Your task to perform on an android device: toggle pop-ups in chrome Image 0: 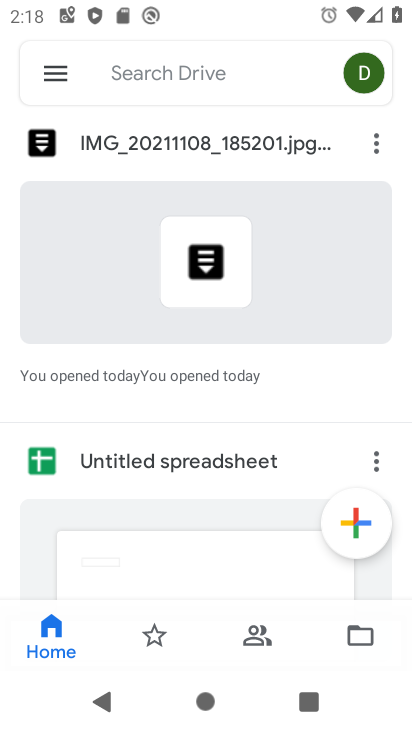
Step 0: press home button
Your task to perform on an android device: toggle pop-ups in chrome Image 1: 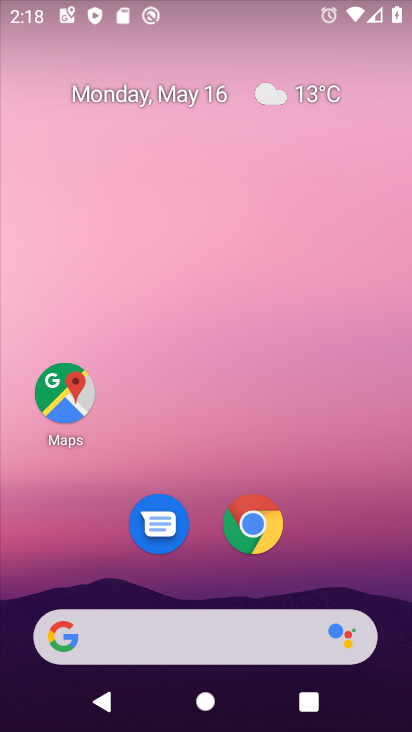
Step 1: click (265, 526)
Your task to perform on an android device: toggle pop-ups in chrome Image 2: 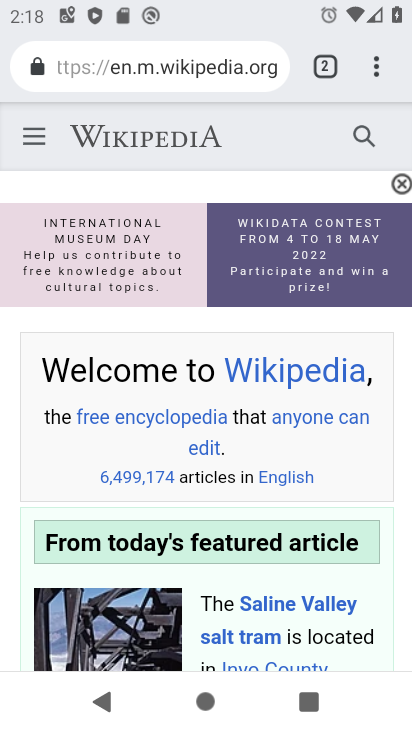
Step 2: click (371, 71)
Your task to perform on an android device: toggle pop-ups in chrome Image 3: 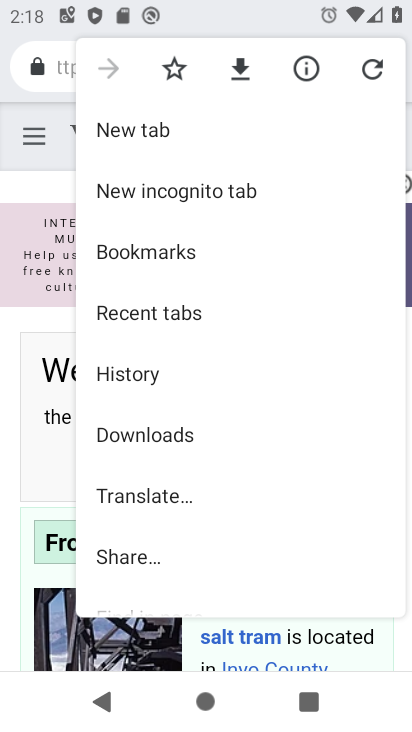
Step 3: drag from (287, 488) to (303, 176)
Your task to perform on an android device: toggle pop-ups in chrome Image 4: 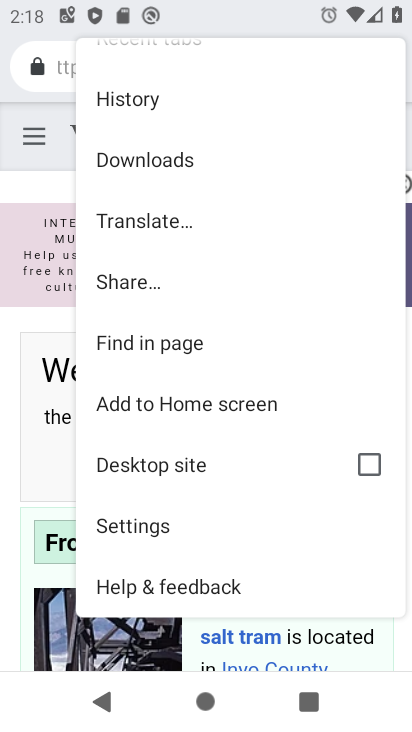
Step 4: click (160, 513)
Your task to perform on an android device: toggle pop-ups in chrome Image 5: 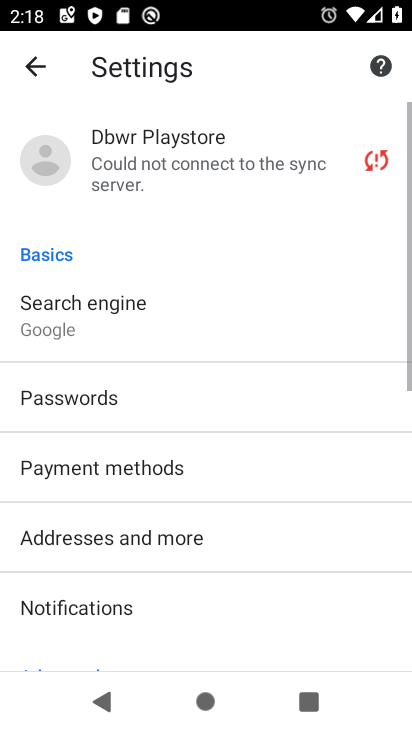
Step 5: drag from (274, 469) to (269, 193)
Your task to perform on an android device: toggle pop-ups in chrome Image 6: 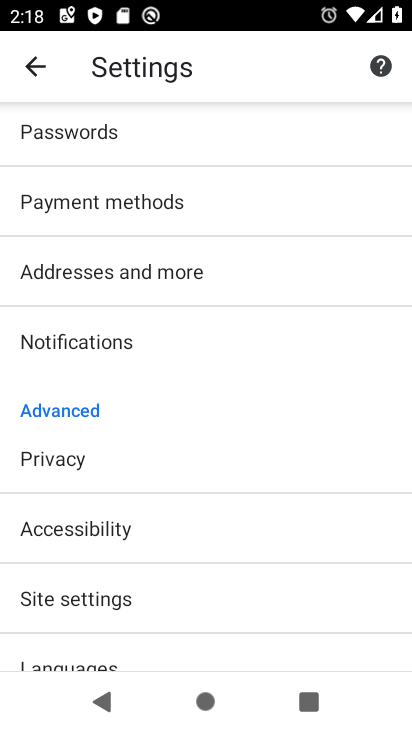
Step 6: click (159, 600)
Your task to perform on an android device: toggle pop-ups in chrome Image 7: 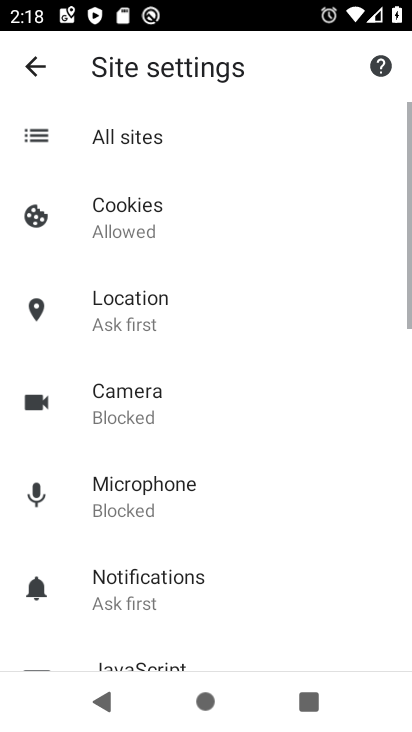
Step 7: drag from (257, 523) to (259, 110)
Your task to perform on an android device: toggle pop-ups in chrome Image 8: 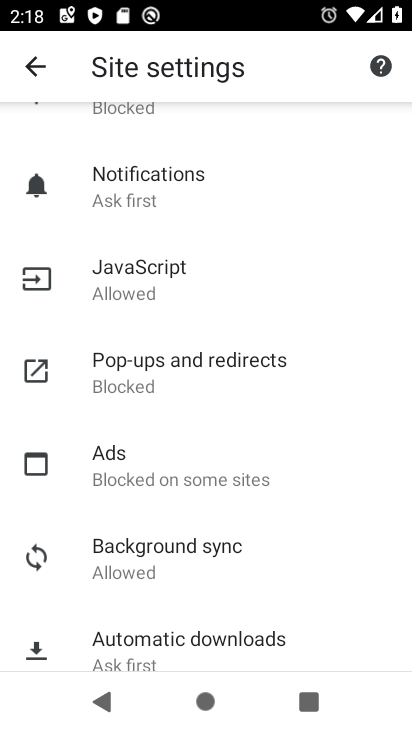
Step 8: click (233, 363)
Your task to perform on an android device: toggle pop-ups in chrome Image 9: 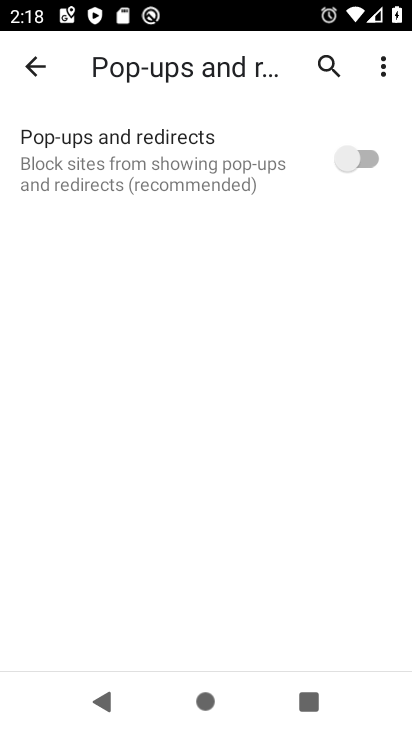
Step 9: click (358, 157)
Your task to perform on an android device: toggle pop-ups in chrome Image 10: 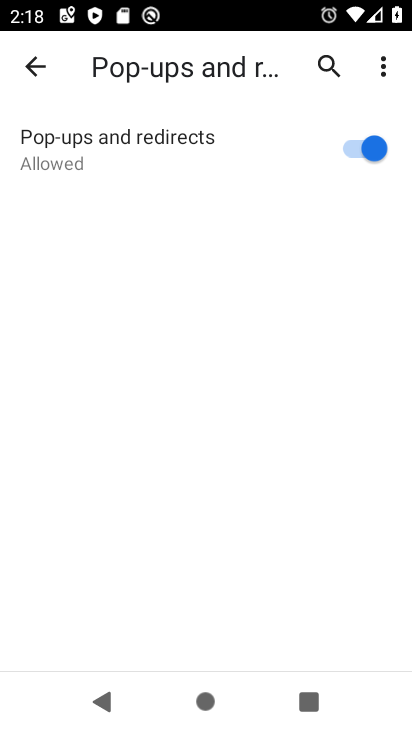
Step 10: task complete